Your task to perform on an android device: turn on the 24-hour format for clock Image 0: 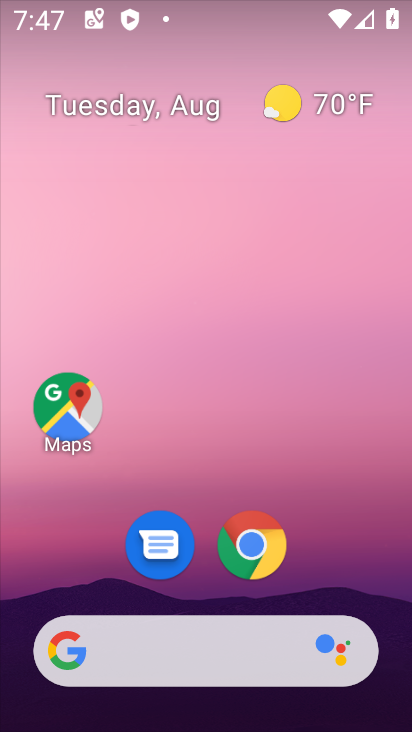
Step 0: drag from (210, 696) to (248, 115)
Your task to perform on an android device: turn on the 24-hour format for clock Image 1: 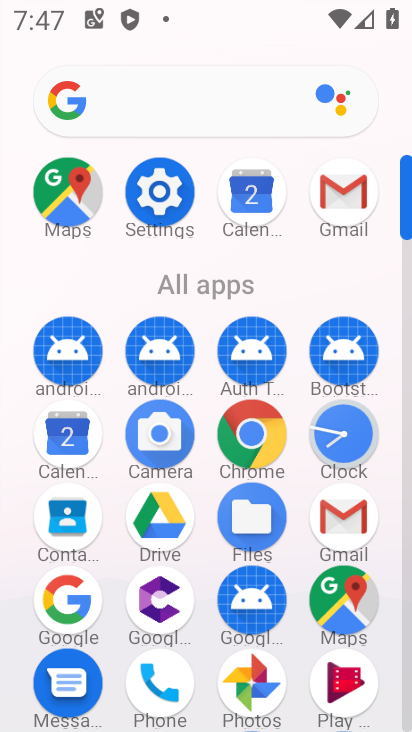
Step 1: click (345, 454)
Your task to perform on an android device: turn on the 24-hour format for clock Image 2: 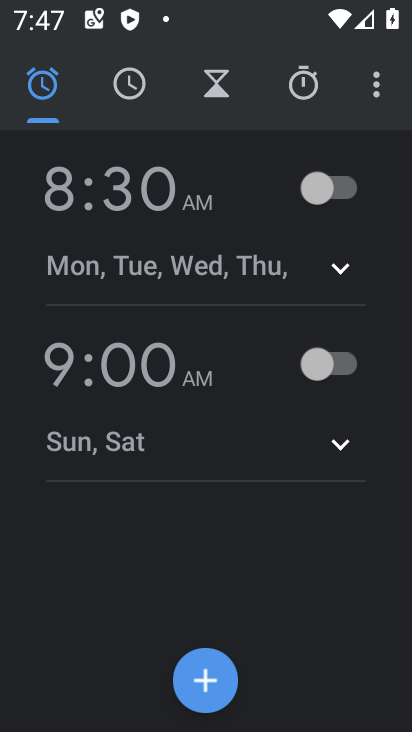
Step 2: click (387, 86)
Your task to perform on an android device: turn on the 24-hour format for clock Image 3: 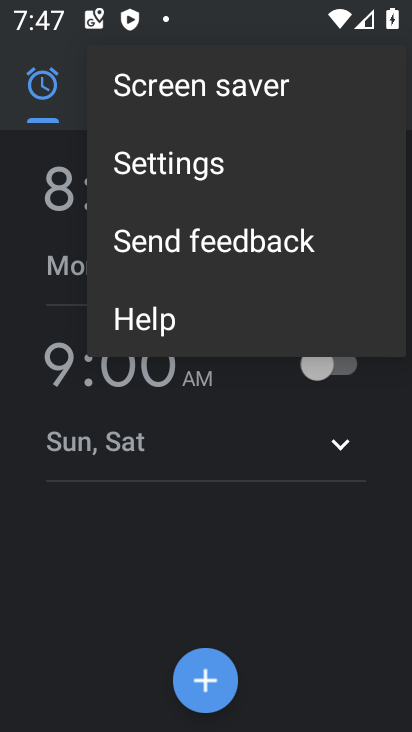
Step 3: click (185, 175)
Your task to perform on an android device: turn on the 24-hour format for clock Image 4: 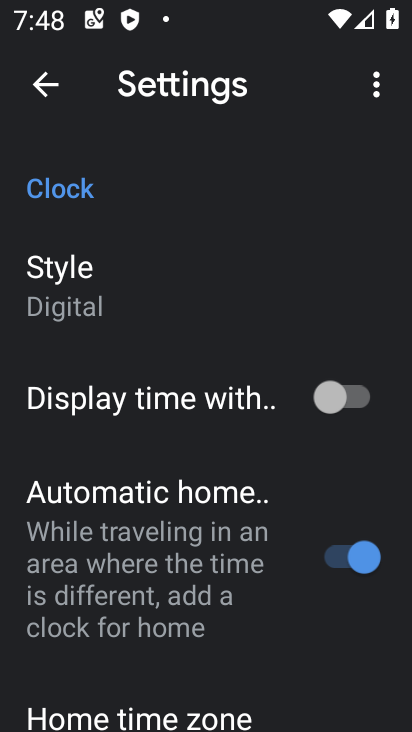
Step 4: drag from (128, 614) to (193, 174)
Your task to perform on an android device: turn on the 24-hour format for clock Image 5: 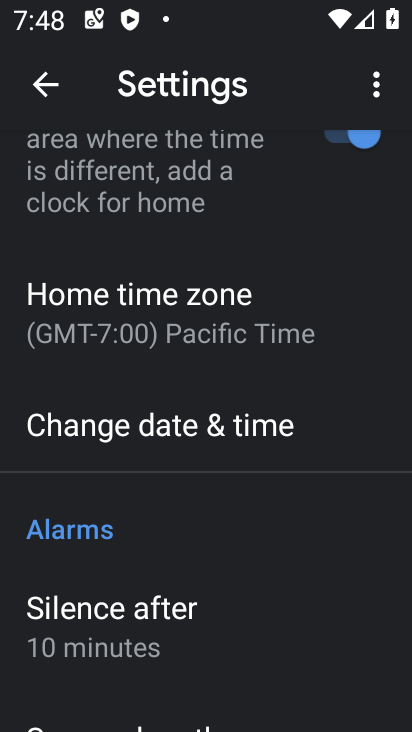
Step 5: click (189, 435)
Your task to perform on an android device: turn on the 24-hour format for clock Image 6: 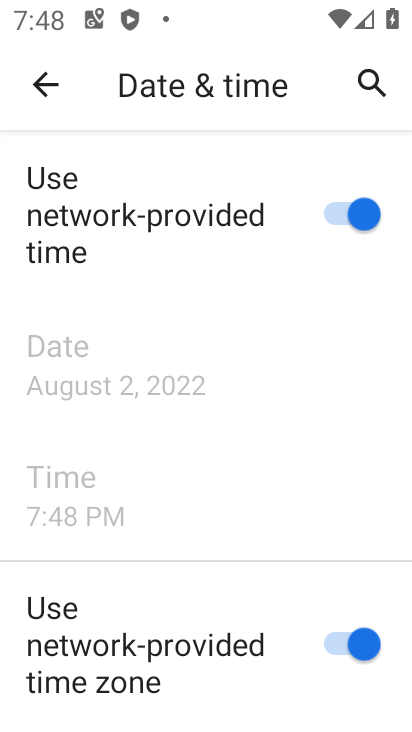
Step 6: task complete